Your task to perform on an android device: Go to battery settings Image 0: 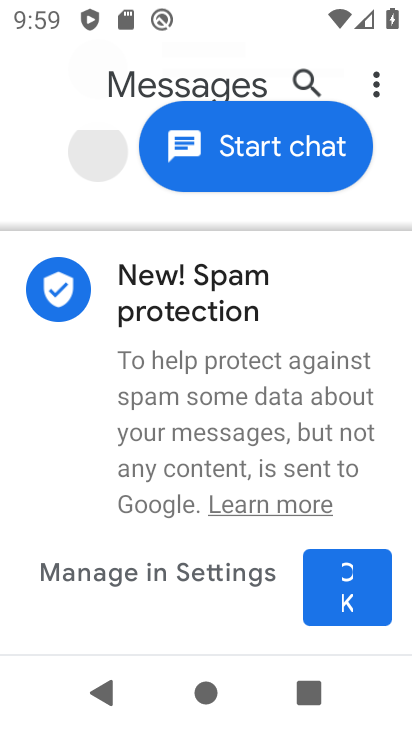
Step 0: press back button
Your task to perform on an android device: Go to battery settings Image 1: 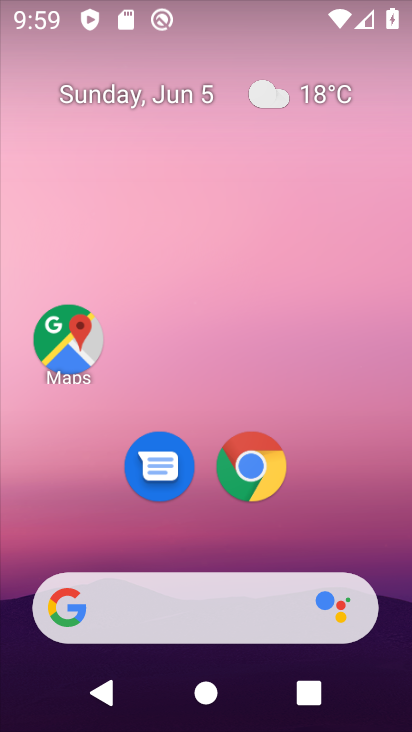
Step 1: drag from (334, 530) to (219, 154)
Your task to perform on an android device: Go to battery settings Image 2: 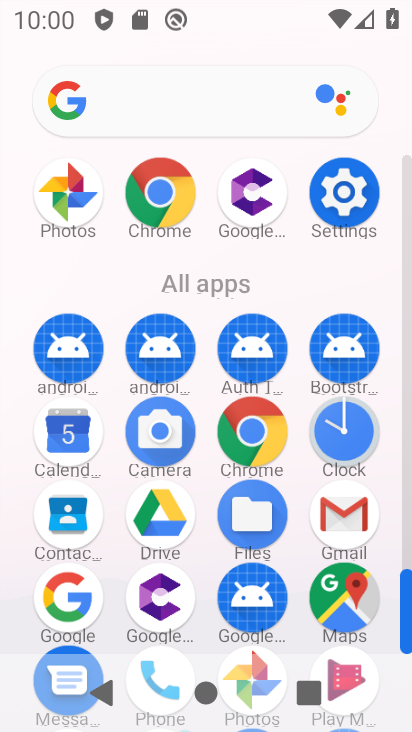
Step 2: click (344, 192)
Your task to perform on an android device: Go to battery settings Image 3: 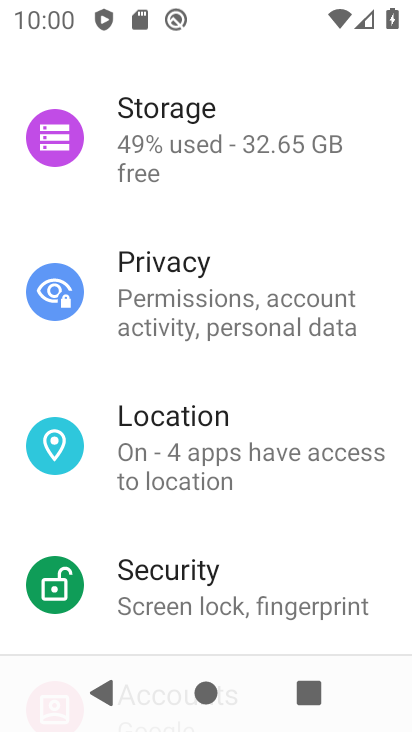
Step 3: drag from (273, 223) to (260, 347)
Your task to perform on an android device: Go to battery settings Image 4: 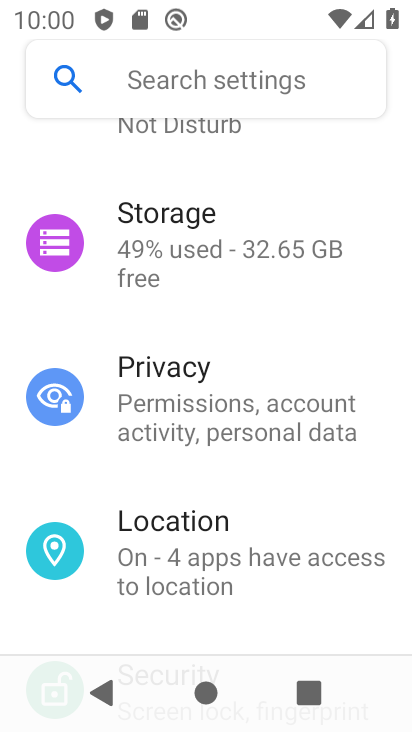
Step 4: drag from (247, 195) to (239, 358)
Your task to perform on an android device: Go to battery settings Image 5: 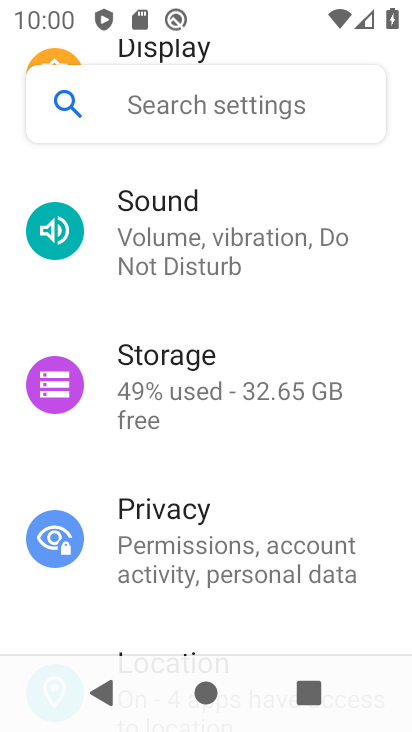
Step 5: drag from (235, 188) to (253, 341)
Your task to perform on an android device: Go to battery settings Image 6: 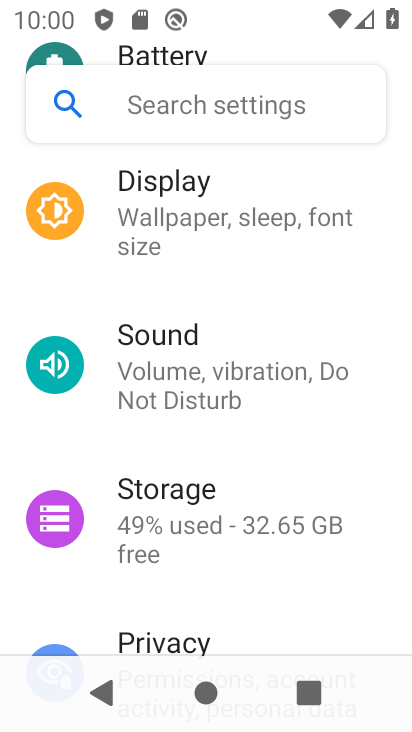
Step 6: drag from (285, 270) to (307, 442)
Your task to perform on an android device: Go to battery settings Image 7: 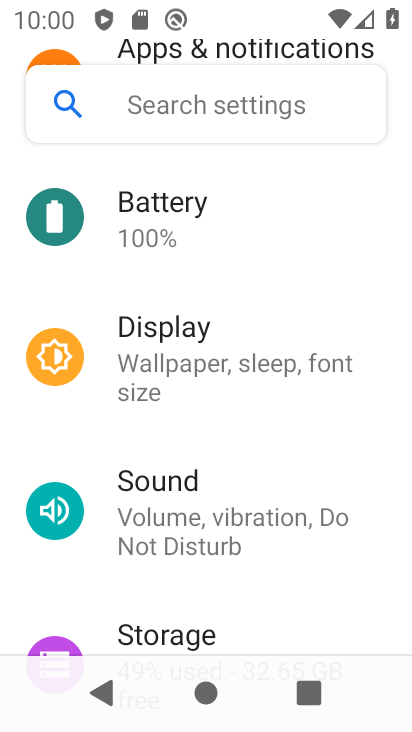
Step 7: drag from (282, 252) to (285, 333)
Your task to perform on an android device: Go to battery settings Image 8: 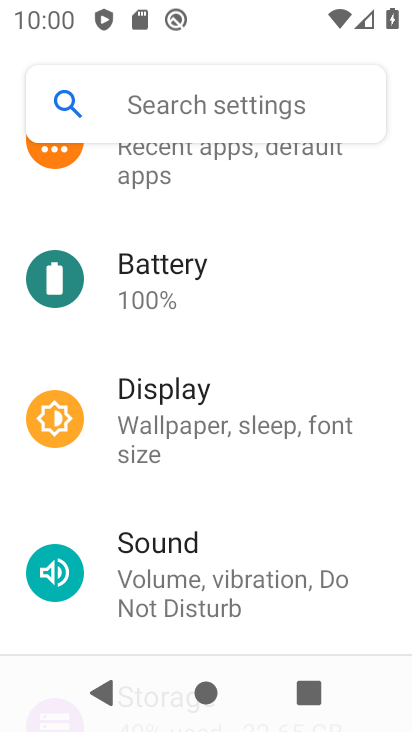
Step 8: click (203, 257)
Your task to perform on an android device: Go to battery settings Image 9: 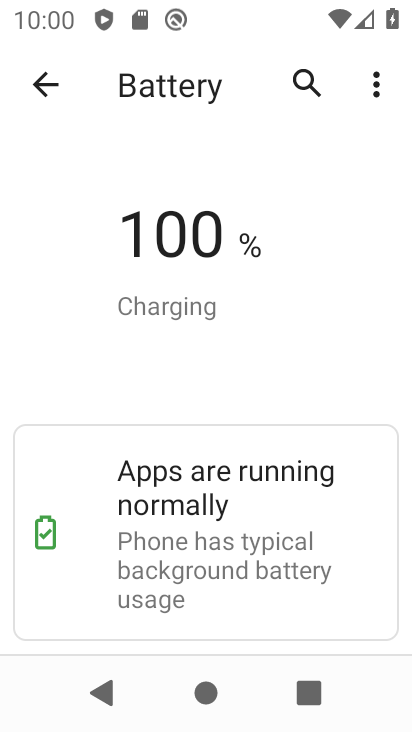
Step 9: task complete